Your task to perform on an android device: Open Maps and search for coffee Image 0: 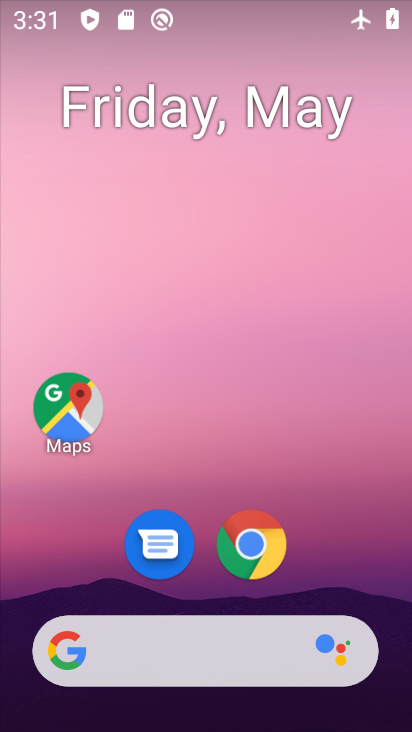
Step 0: drag from (330, 615) to (203, 71)
Your task to perform on an android device: Open Maps and search for coffee Image 1: 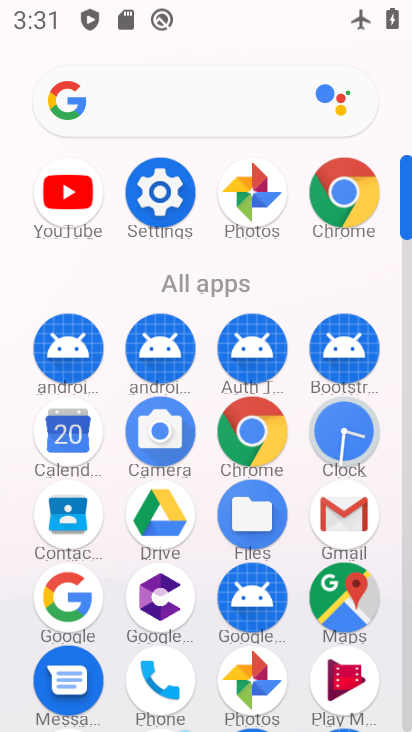
Step 1: click (342, 595)
Your task to perform on an android device: Open Maps and search for coffee Image 2: 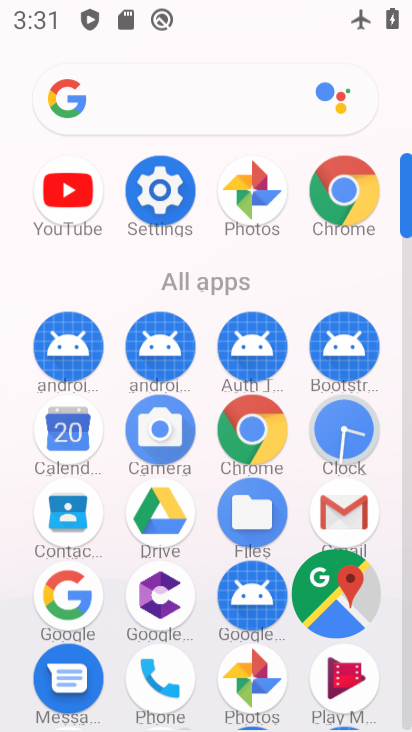
Step 2: click (333, 596)
Your task to perform on an android device: Open Maps and search for coffee Image 3: 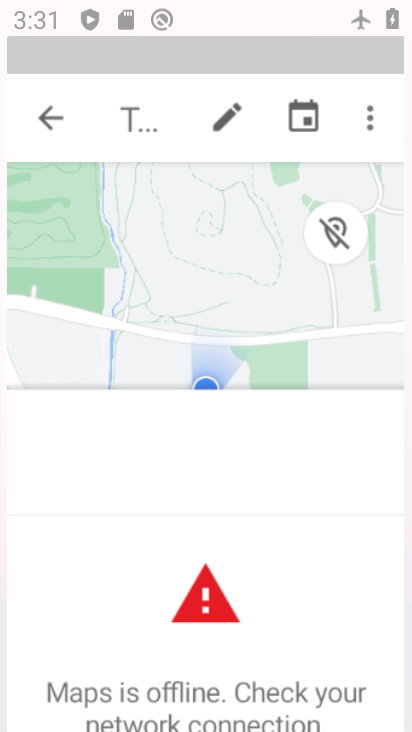
Step 3: click (333, 596)
Your task to perform on an android device: Open Maps and search for coffee Image 4: 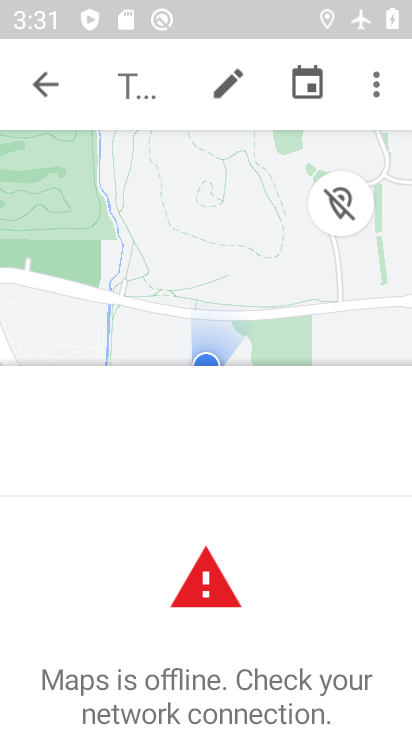
Step 4: click (34, 77)
Your task to perform on an android device: Open Maps and search for coffee Image 5: 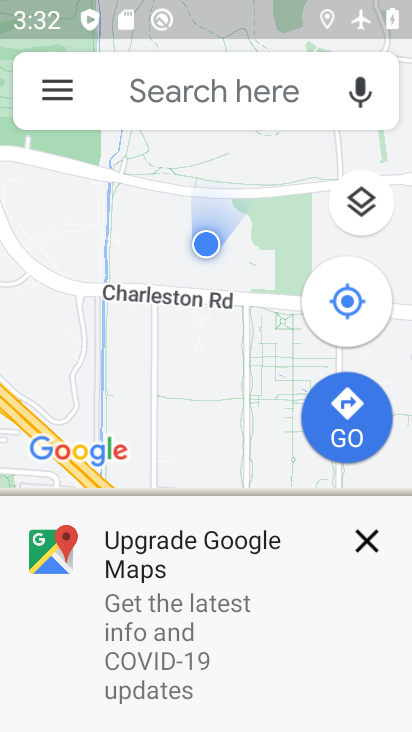
Step 5: click (124, 86)
Your task to perform on an android device: Open Maps and search for coffee Image 6: 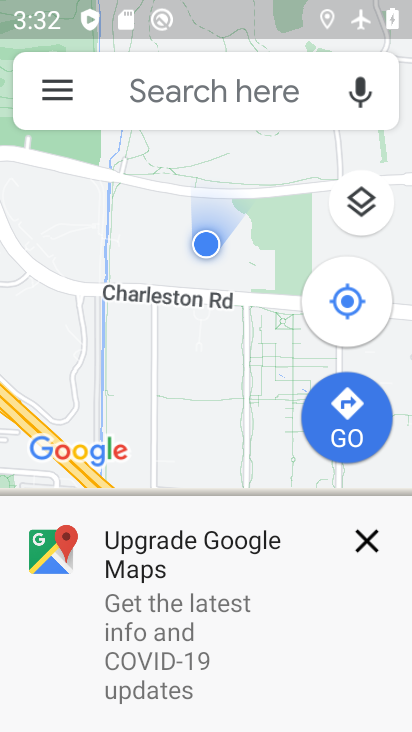
Step 6: click (141, 91)
Your task to perform on an android device: Open Maps and search for coffee Image 7: 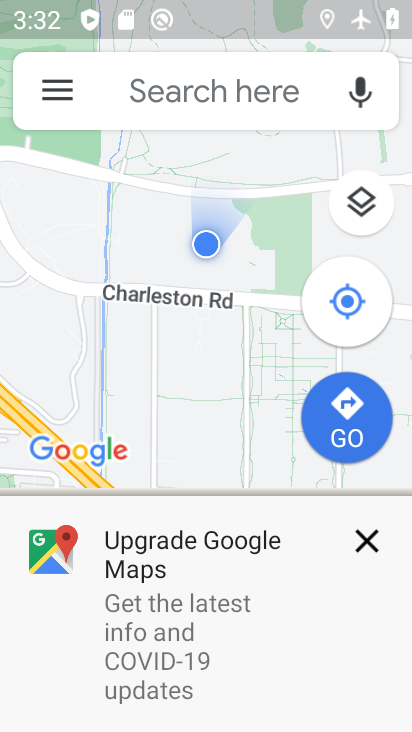
Step 7: click (141, 91)
Your task to perform on an android device: Open Maps and search for coffee Image 8: 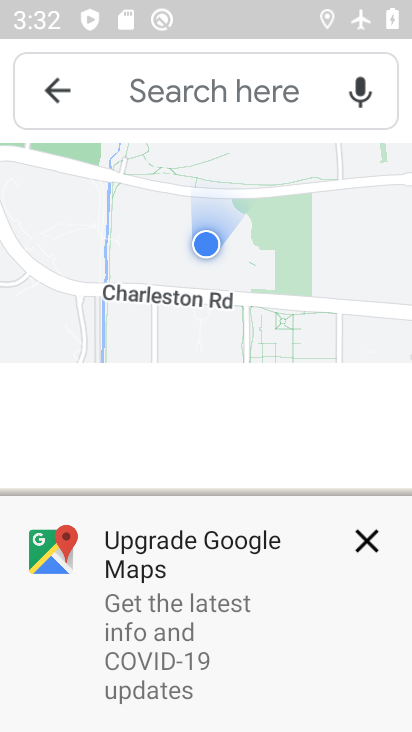
Step 8: click (141, 91)
Your task to perform on an android device: Open Maps and search for coffee Image 9: 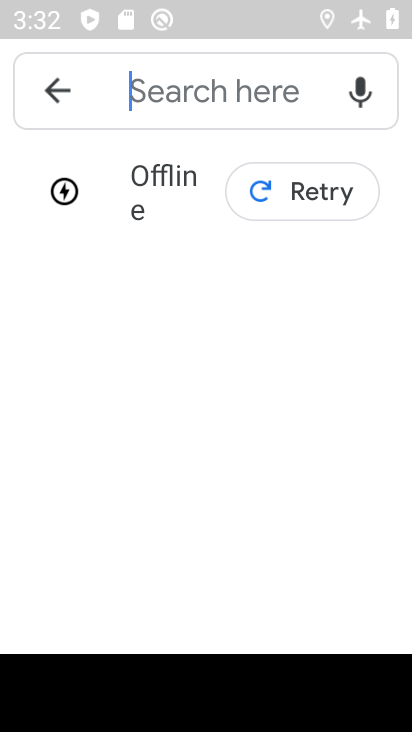
Step 9: type "coffee"
Your task to perform on an android device: Open Maps and search for coffee Image 10: 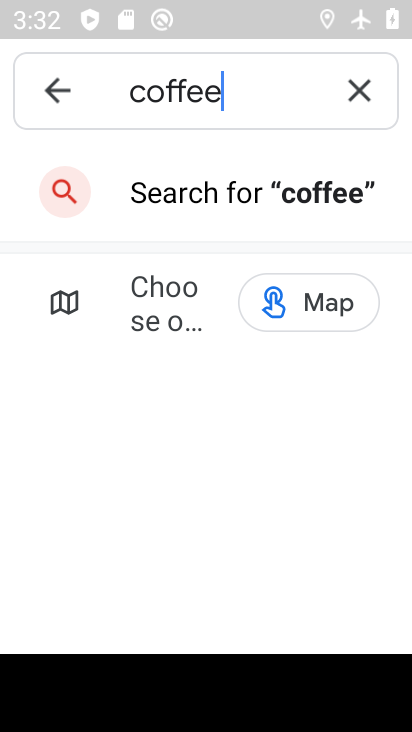
Step 10: click (333, 184)
Your task to perform on an android device: Open Maps and search for coffee Image 11: 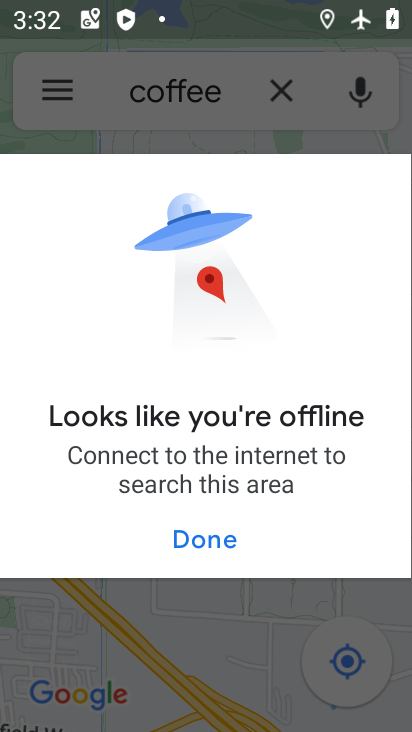
Step 11: task complete